Your task to perform on an android device: Go to eBay Image 0: 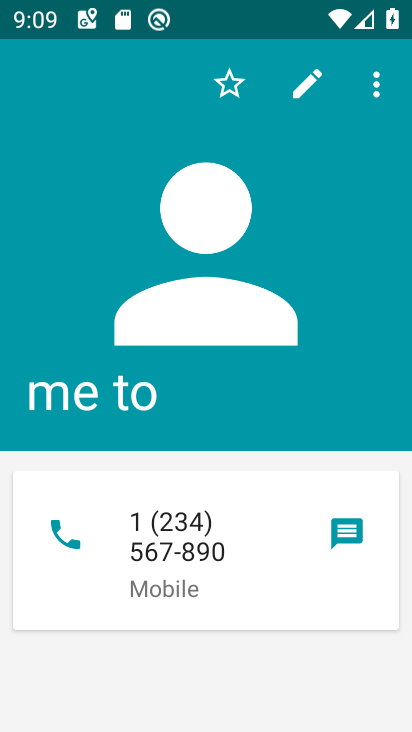
Step 0: press home button
Your task to perform on an android device: Go to eBay Image 1: 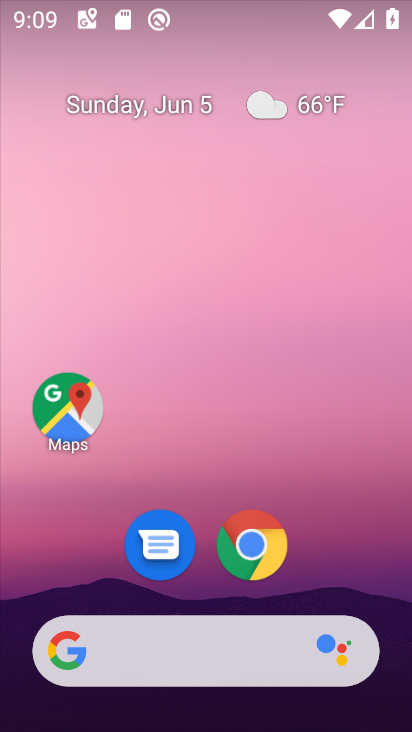
Step 1: drag from (357, 578) to (370, 156)
Your task to perform on an android device: Go to eBay Image 2: 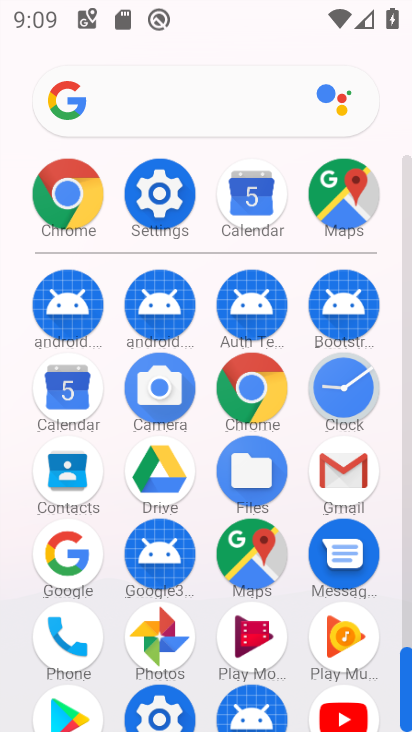
Step 2: click (252, 391)
Your task to perform on an android device: Go to eBay Image 3: 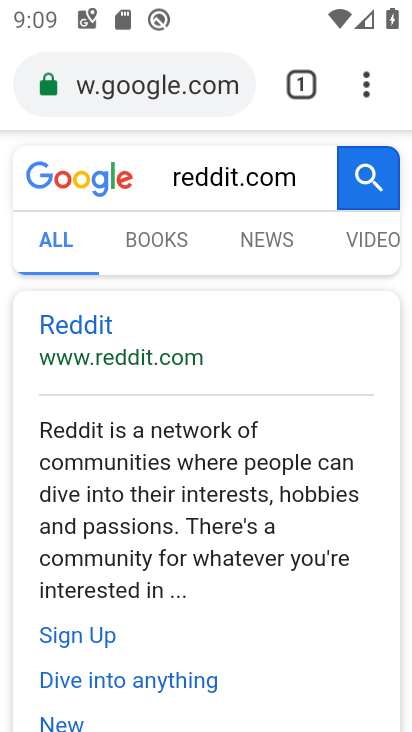
Step 3: click (212, 92)
Your task to perform on an android device: Go to eBay Image 4: 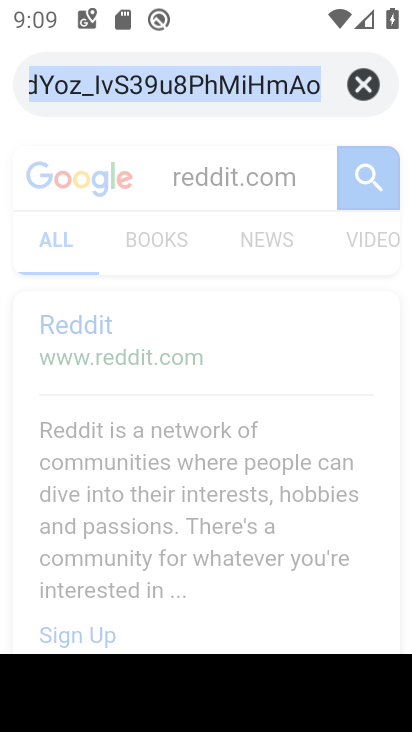
Step 4: click (367, 91)
Your task to perform on an android device: Go to eBay Image 5: 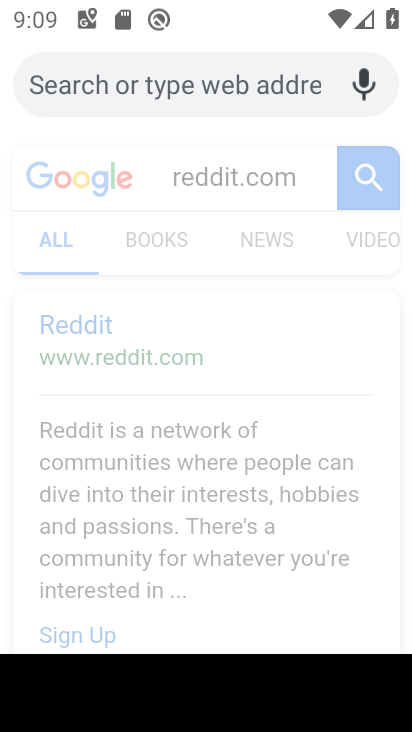
Step 5: click (278, 75)
Your task to perform on an android device: Go to eBay Image 6: 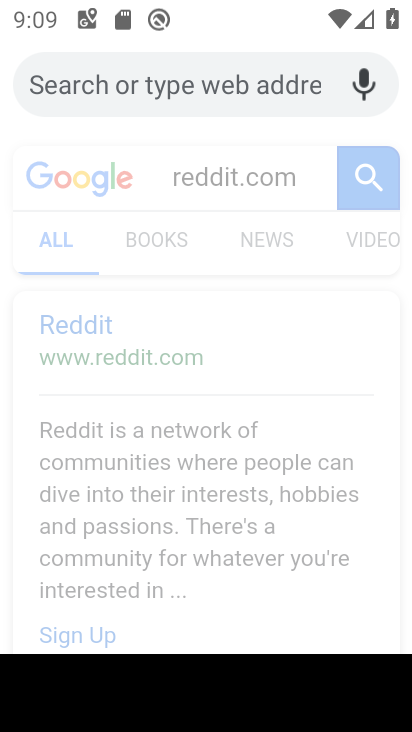
Step 6: type "ebay"
Your task to perform on an android device: Go to eBay Image 7: 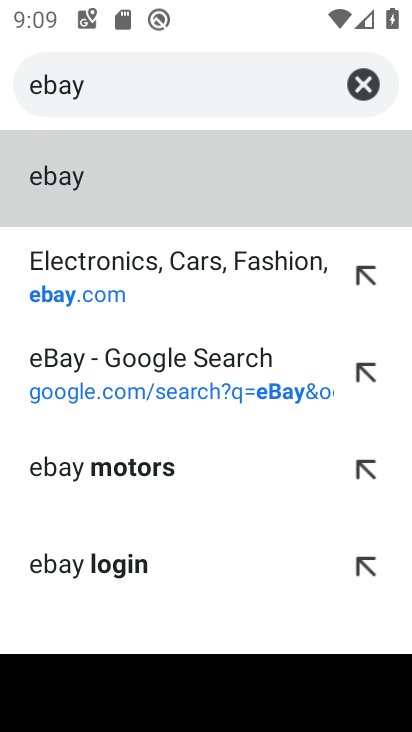
Step 7: click (181, 196)
Your task to perform on an android device: Go to eBay Image 8: 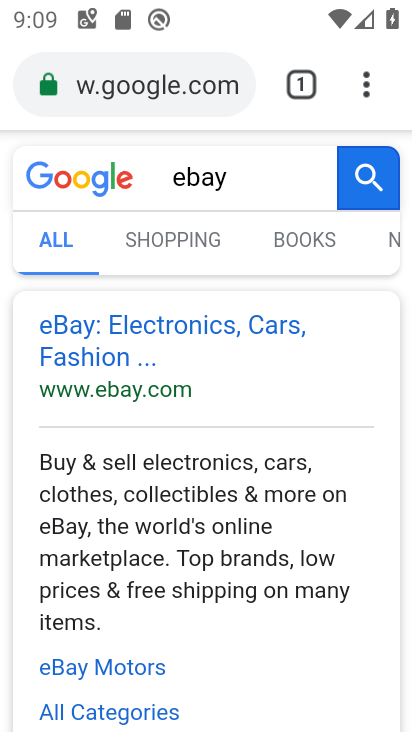
Step 8: task complete